Your task to perform on an android device: Open the Play Movies app and select the watchlist tab. Image 0: 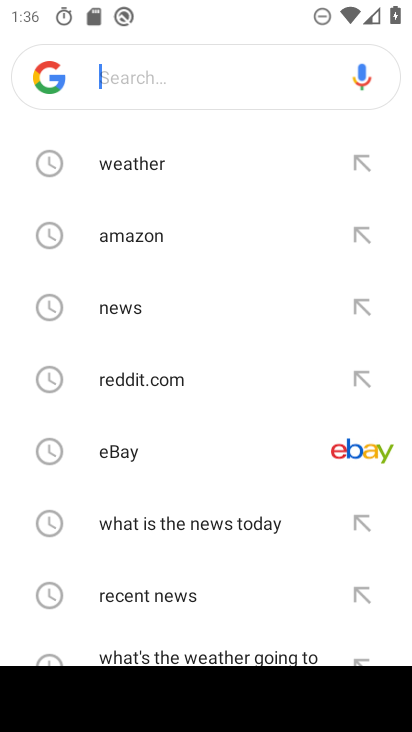
Step 0: drag from (180, 539) to (227, 234)
Your task to perform on an android device: Open the Play Movies app and select the watchlist tab. Image 1: 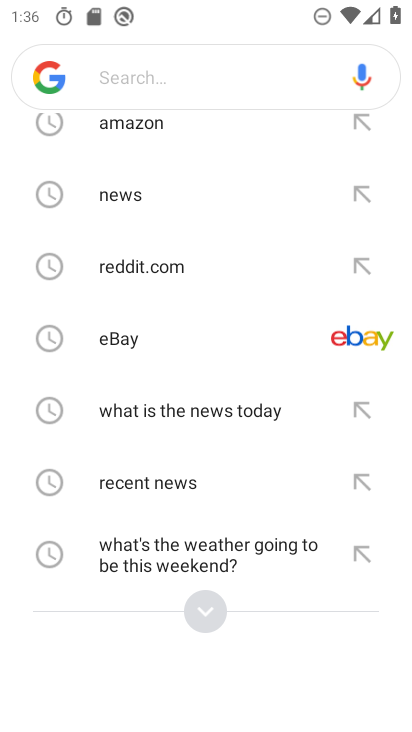
Step 1: drag from (197, 177) to (180, 512)
Your task to perform on an android device: Open the Play Movies app and select the watchlist tab. Image 2: 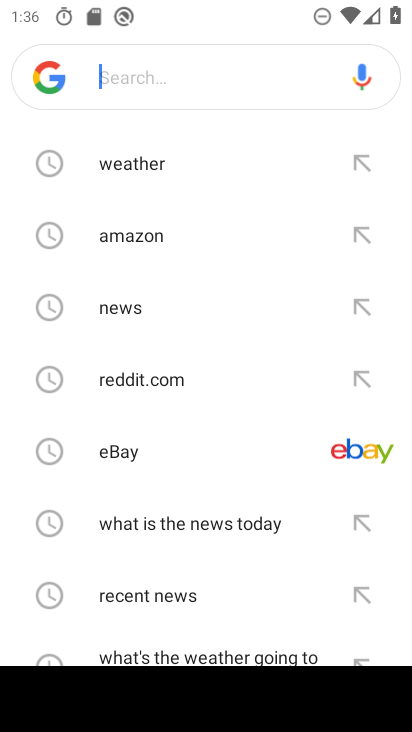
Step 2: press home button
Your task to perform on an android device: Open the Play Movies app and select the watchlist tab. Image 3: 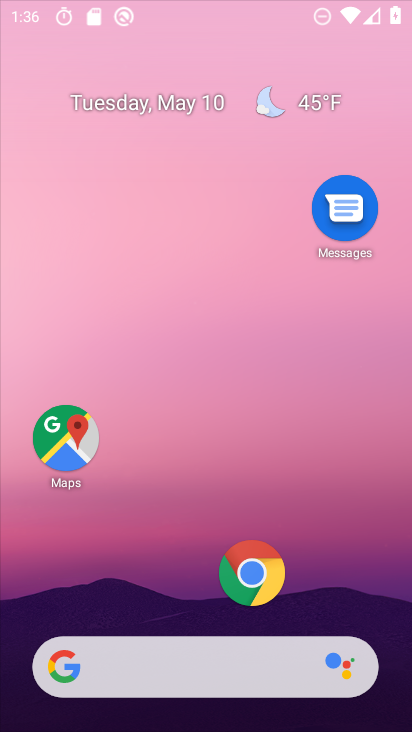
Step 3: drag from (195, 598) to (235, 342)
Your task to perform on an android device: Open the Play Movies app and select the watchlist tab. Image 4: 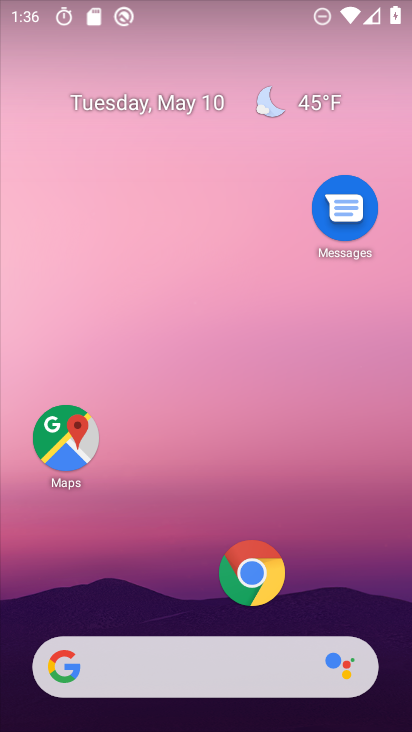
Step 4: drag from (208, 604) to (247, 133)
Your task to perform on an android device: Open the Play Movies app and select the watchlist tab. Image 5: 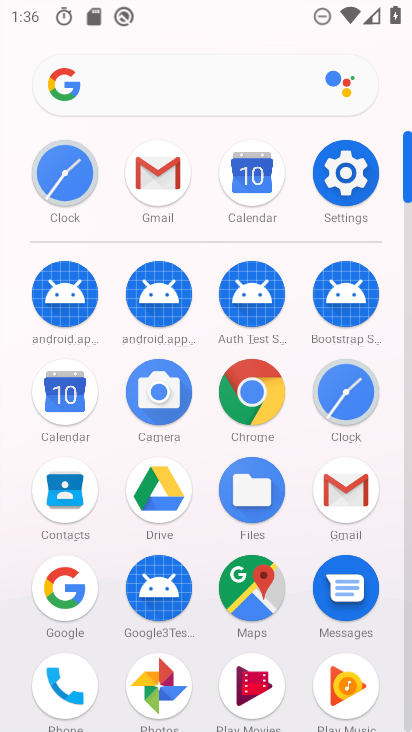
Step 5: click (260, 671)
Your task to perform on an android device: Open the Play Movies app and select the watchlist tab. Image 6: 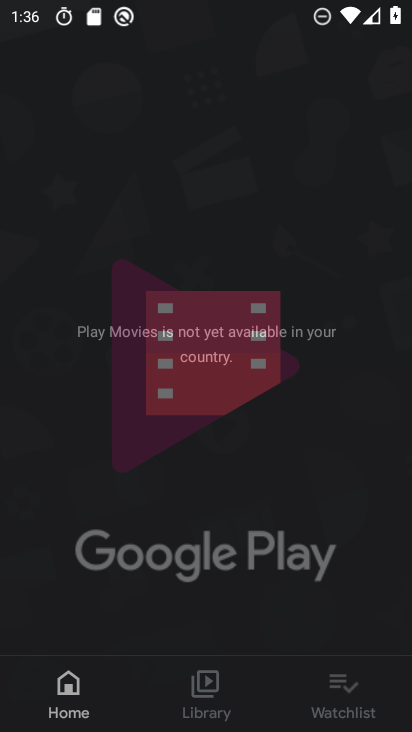
Step 6: click (322, 330)
Your task to perform on an android device: Open the Play Movies app and select the watchlist tab. Image 7: 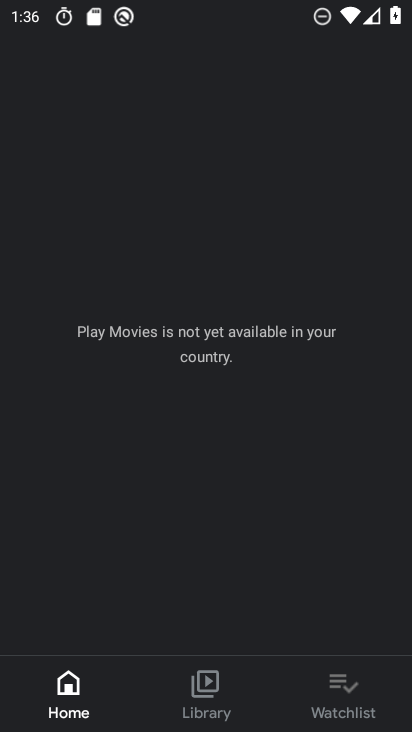
Step 7: click (280, 319)
Your task to perform on an android device: Open the Play Movies app and select the watchlist tab. Image 8: 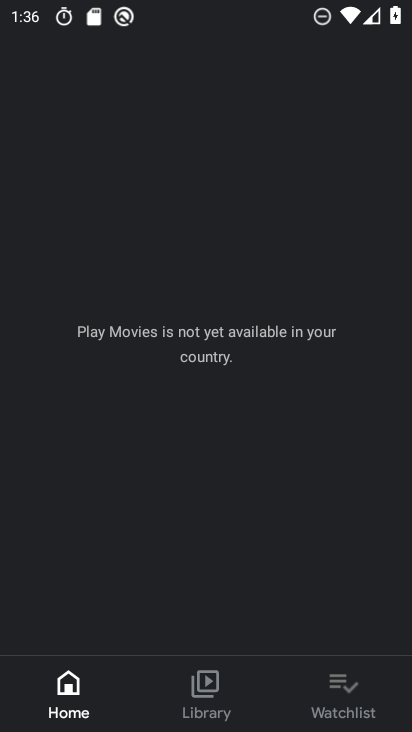
Step 8: click (354, 691)
Your task to perform on an android device: Open the Play Movies app and select the watchlist tab. Image 9: 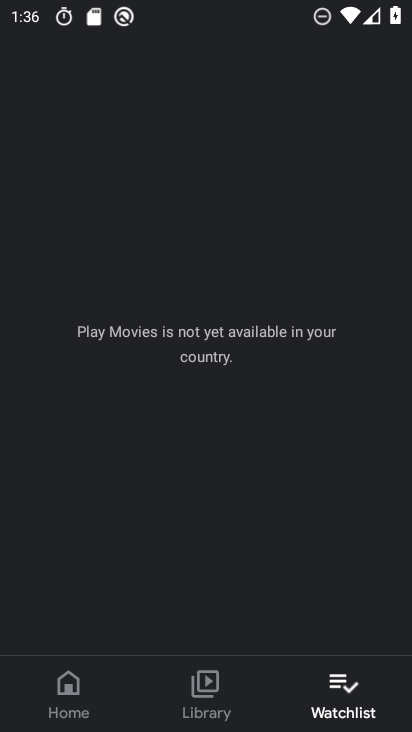
Step 9: drag from (234, 589) to (232, 338)
Your task to perform on an android device: Open the Play Movies app and select the watchlist tab. Image 10: 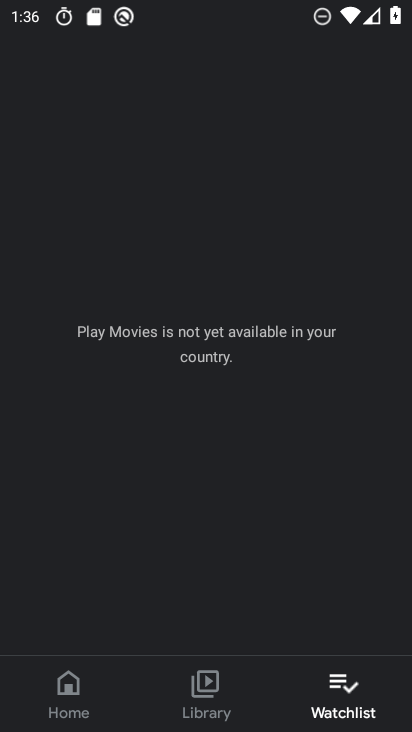
Step 10: drag from (184, 271) to (243, 604)
Your task to perform on an android device: Open the Play Movies app and select the watchlist tab. Image 11: 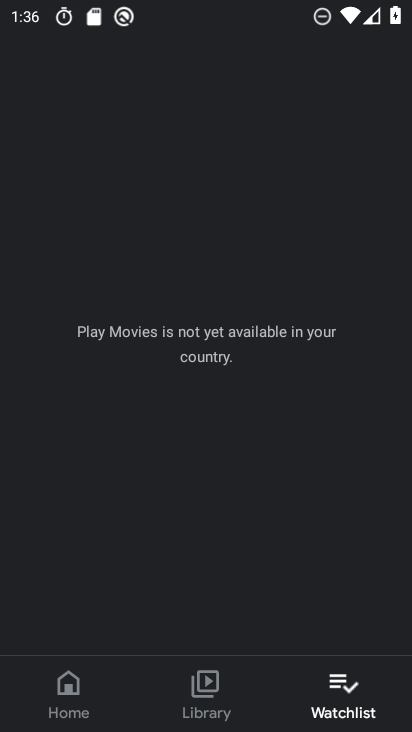
Step 11: click (341, 682)
Your task to perform on an android device: Open the Play Movies app and select the watchlist tab. Image 12: 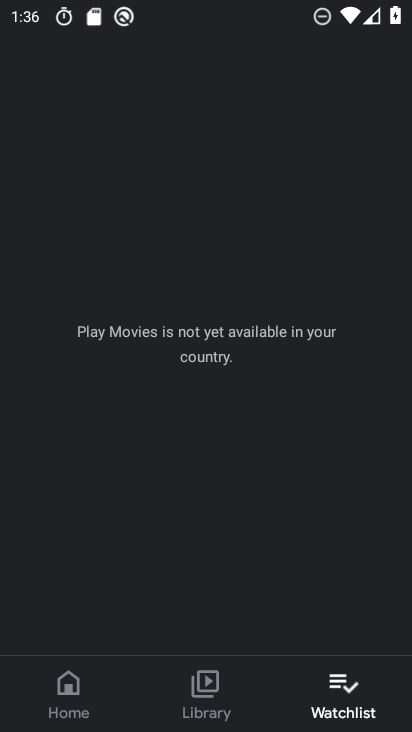
Step 12: click (343, 684)
Your task to perform on an android device: Open the Play Movies app and select the watchlist tab. Image 13: 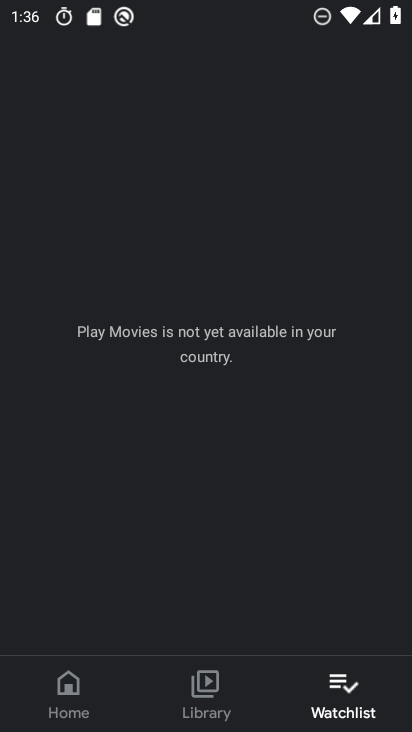
Step 13: task complete